Your task to perform on an android device: Search for Italian restaurants on Maps Image 0: 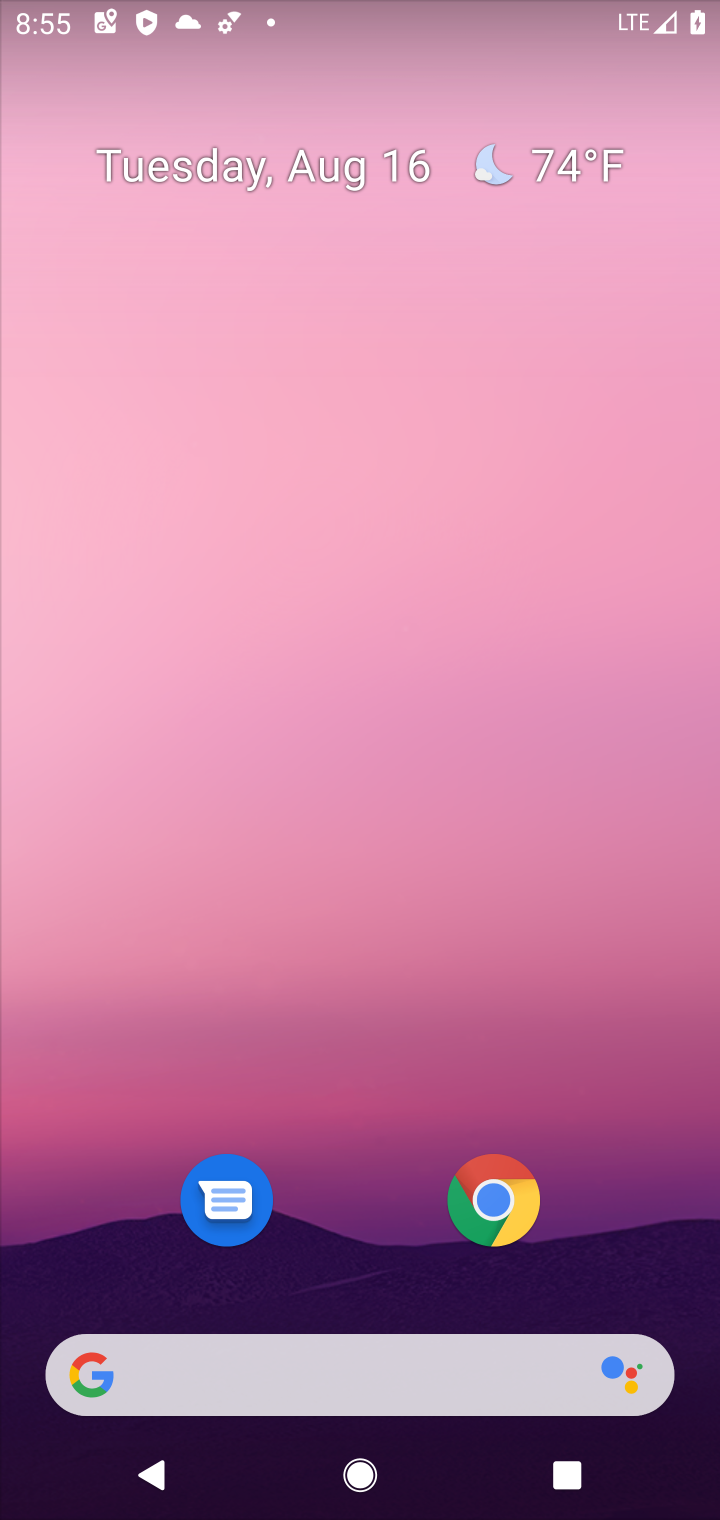
Step 0: drag from (625, 1185) to (596, 214)
Your task to perform on an android device: Search for Italian restaurants on Maps Image 1: 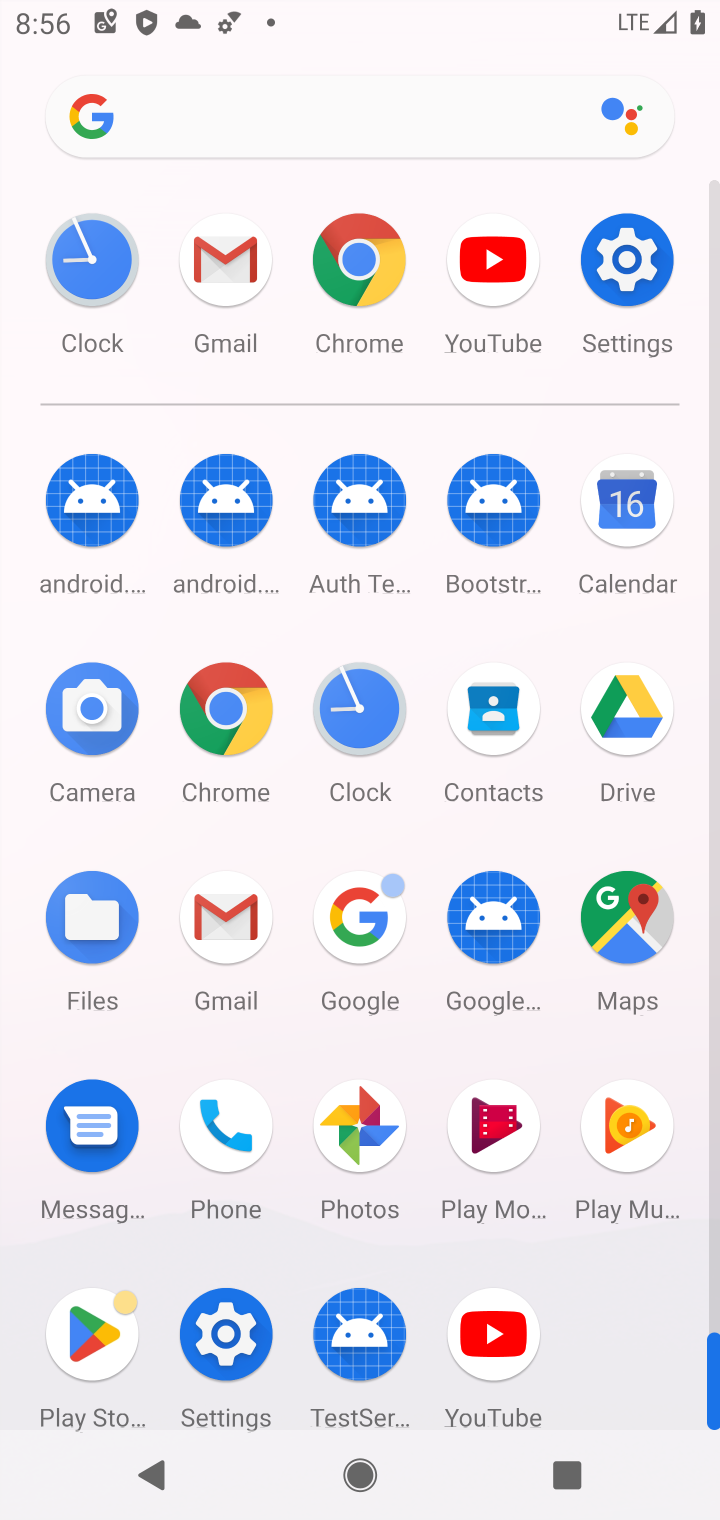
Step 1: click (629, 922)
Your task to perform on an android device: Search for Italian restaurants on Maps Image 2: 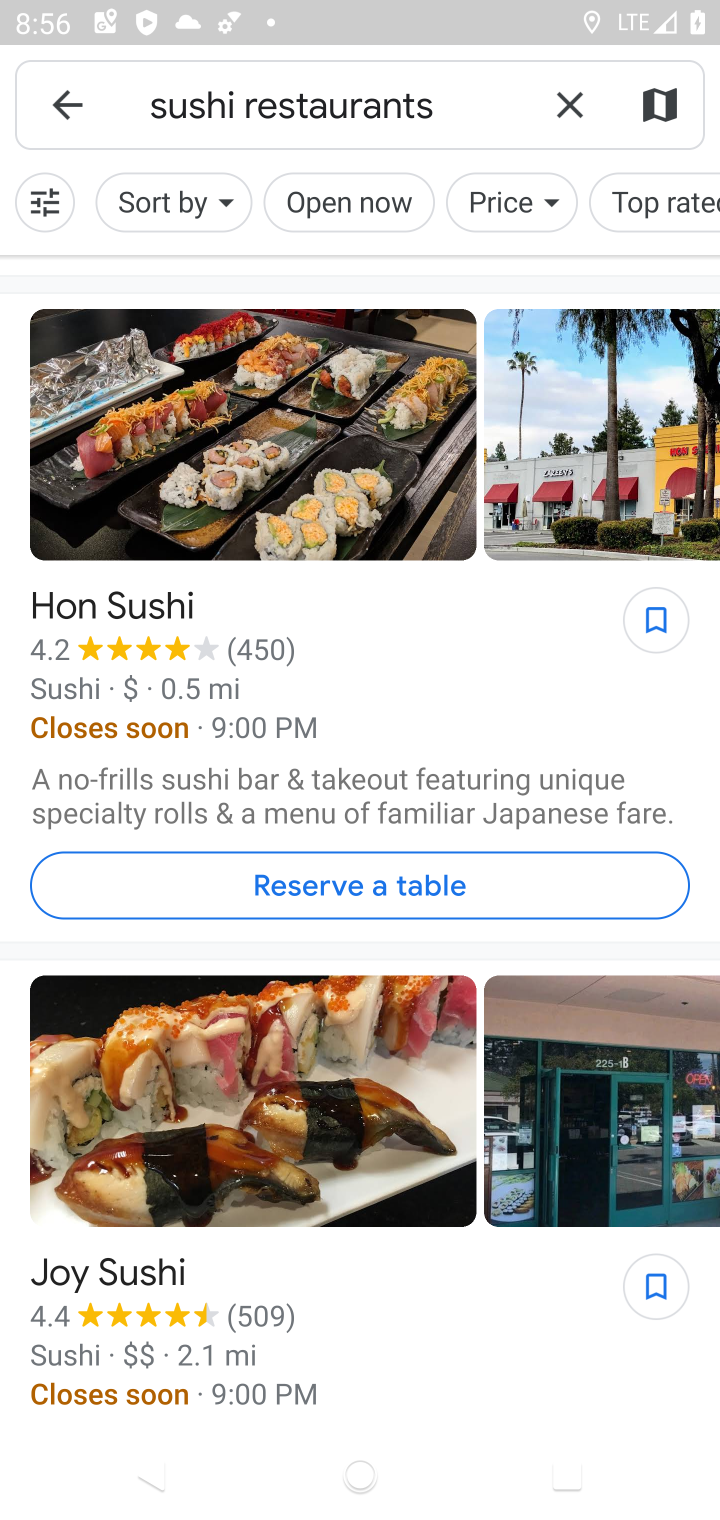
Step 2: click (564, 82)
Your task to perform on an android device: Search for Italian restaurants on Maps Image 3: 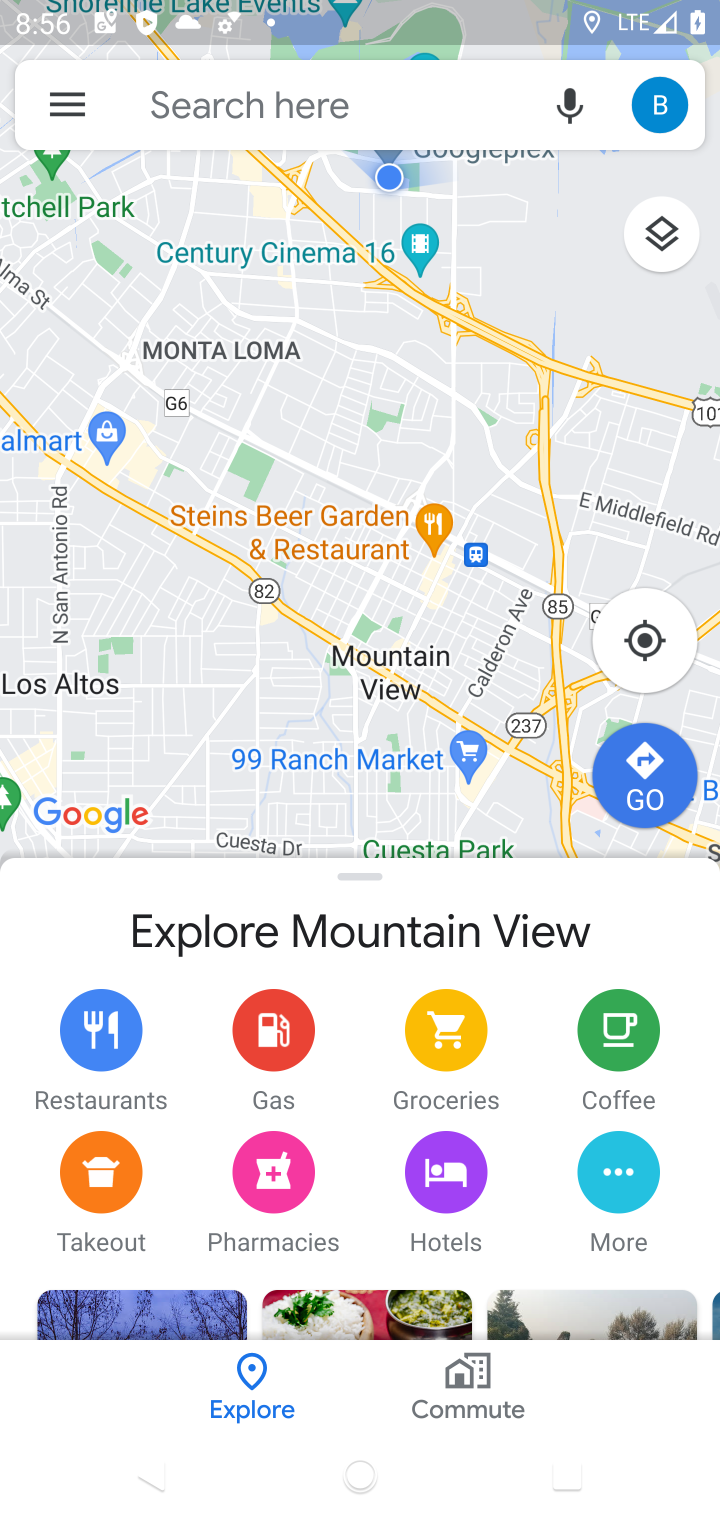
Step 3: click (330, 123)
Your task to perform on an android device: Search for Italian restaurants on Maps Image 4: 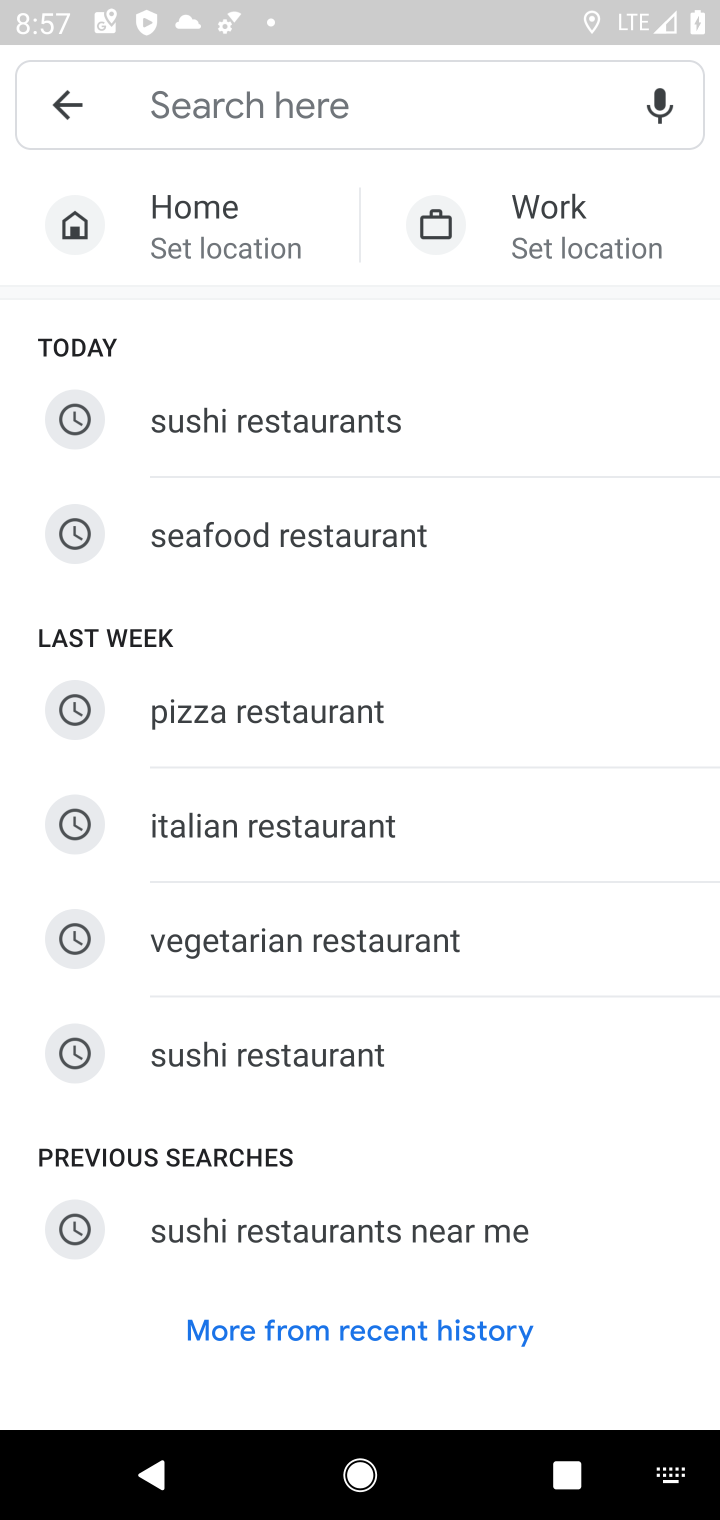
Step 4: type "italian restaurants"
Your task to perform on an android device: Search for Italian restaurants on Maps Image 5: 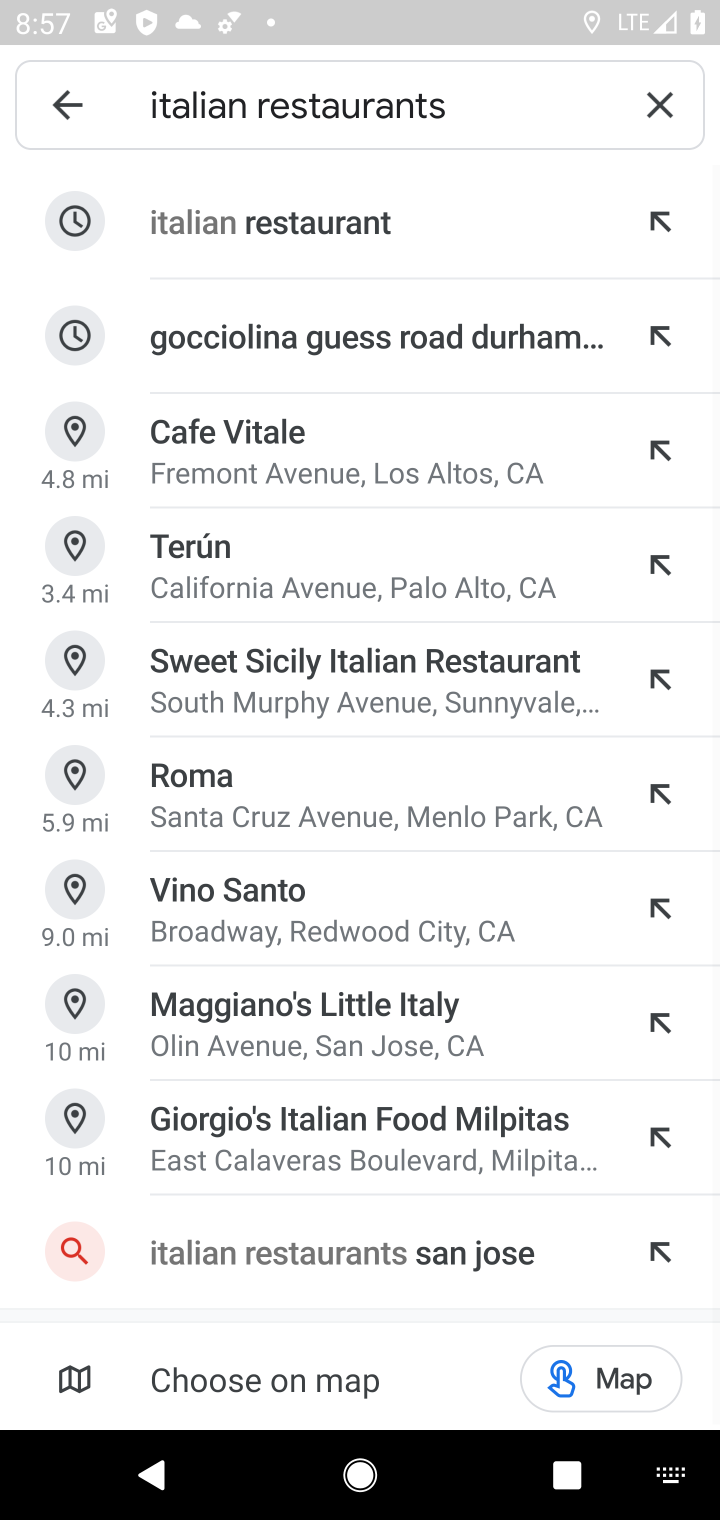
Step 5: click (264, 225)
Your task to perform on an android device: Search for Italian restaurants on Maps Image 6: 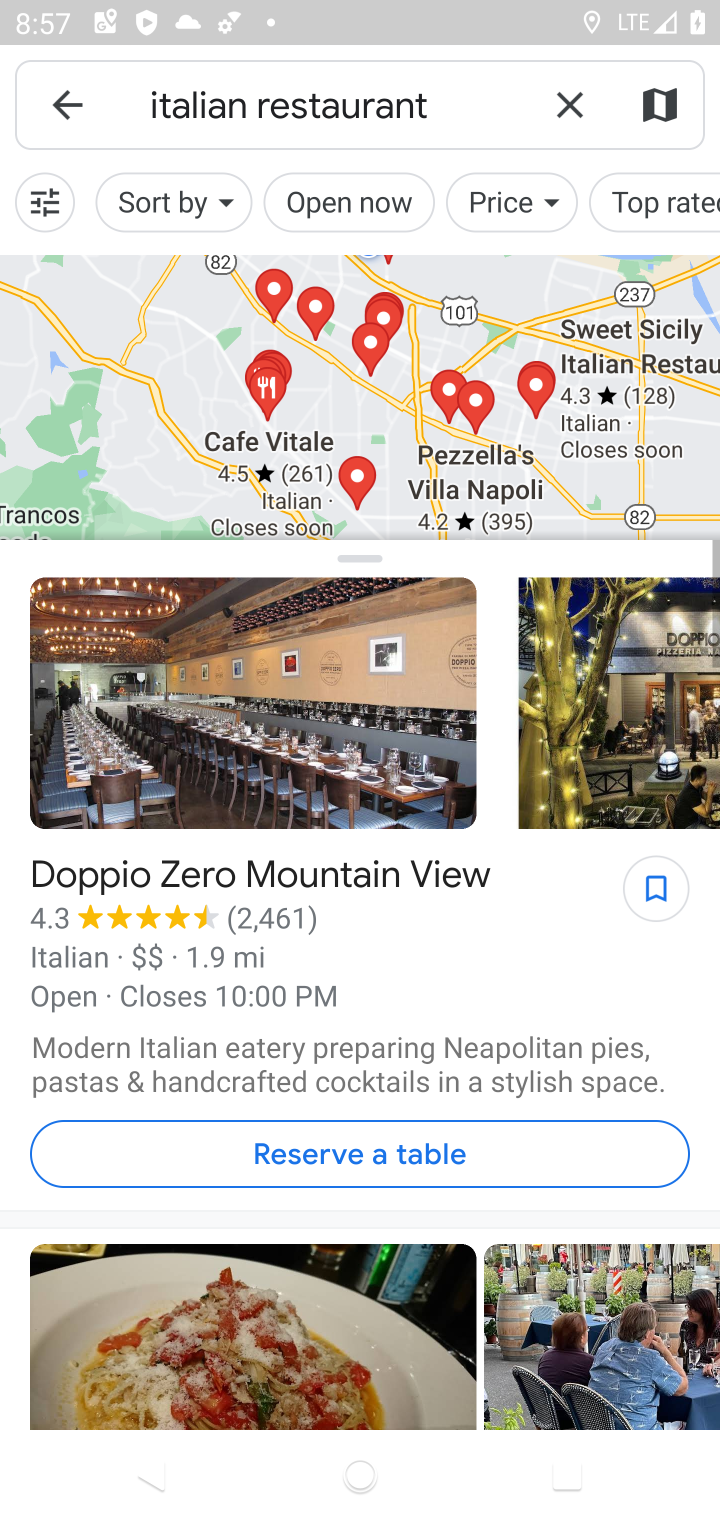
Step 6: task complete